Your task to perform on an android device: delete location history Image 0: 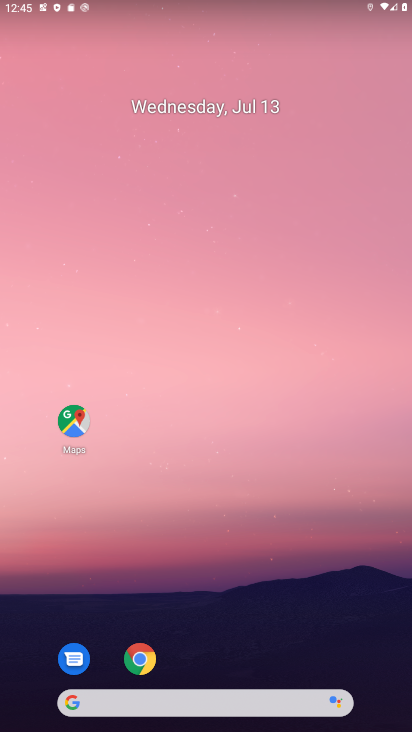
Step 0: click (261, 143)
Your task to perform on an android device: delete location history Image 1: 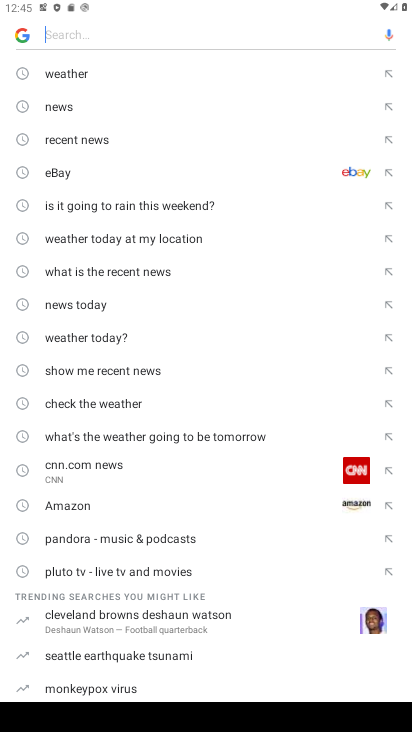
Step 1: drag from (164, 549) to (189, 278)
Your task to perform on an android device: delete location history Image 2: 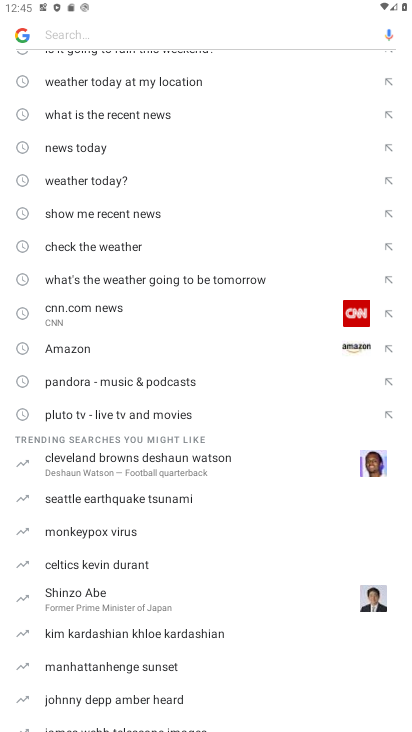
Step 2: drag from (216, 243) to (243, 723)
Your task to perform on an android device: delete location history Image 3: 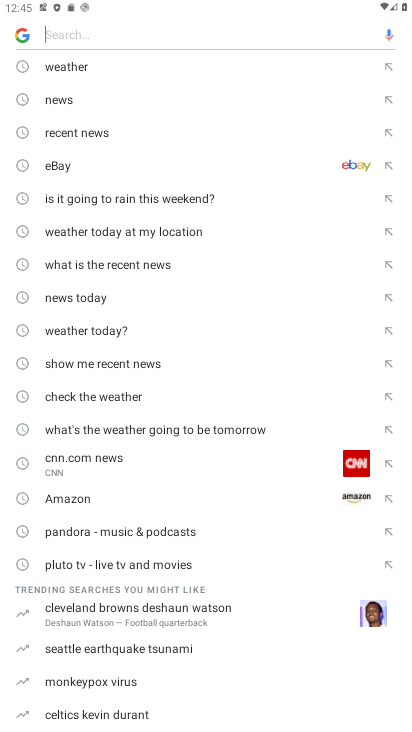
Step 3: press home button
Your task to perform on an android device: delete location history Image 4: 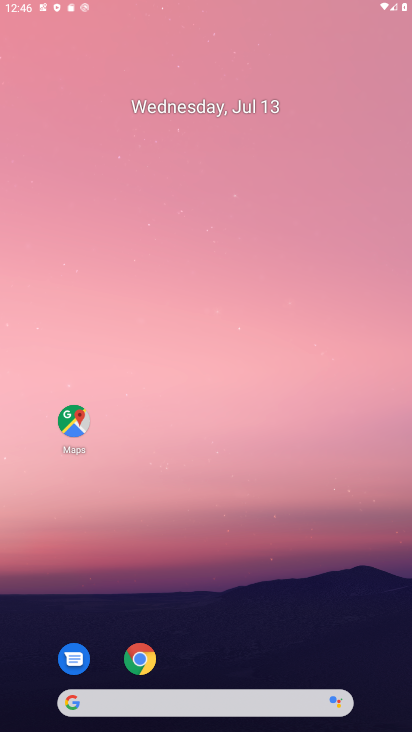
Step 4: drag from (165, 628) to (244, 157)
Your task to perform on an android device: delete location history Image 5: 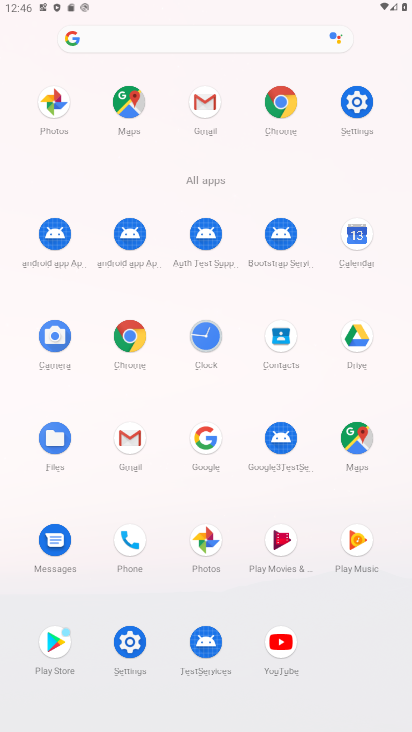
Step 5: click (348, 99)
Your task to perform on an android device: delete location history Image 6: 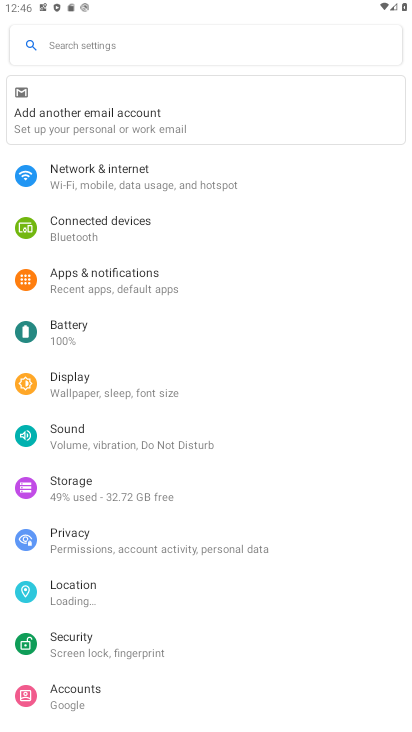
Step 6: drag from (161, 603) to (247, 247)
Your task to perform on an android device: delete location history Image 7: 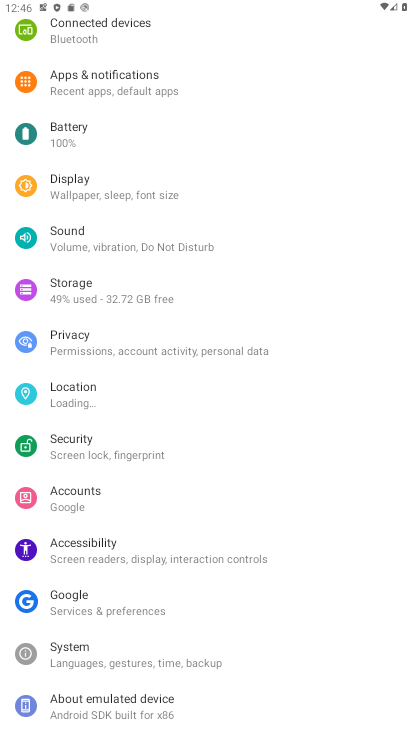
Step 7: click (125, 392)
Your task to perform on an android device: delete location history Image 8: 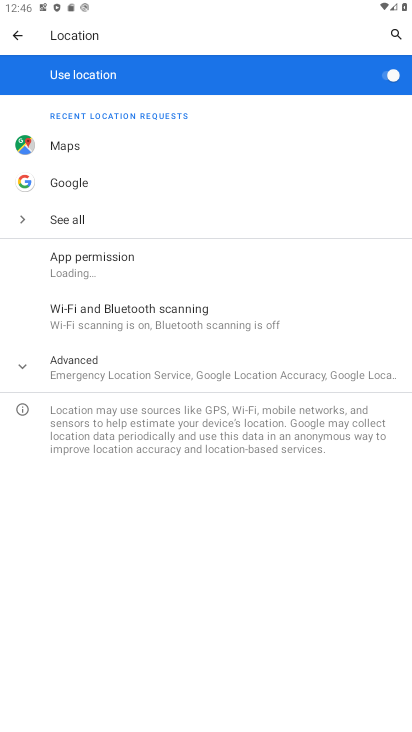
Step 8: click (129, 380)
Your task to perform on an android device: delete location history Image 9: 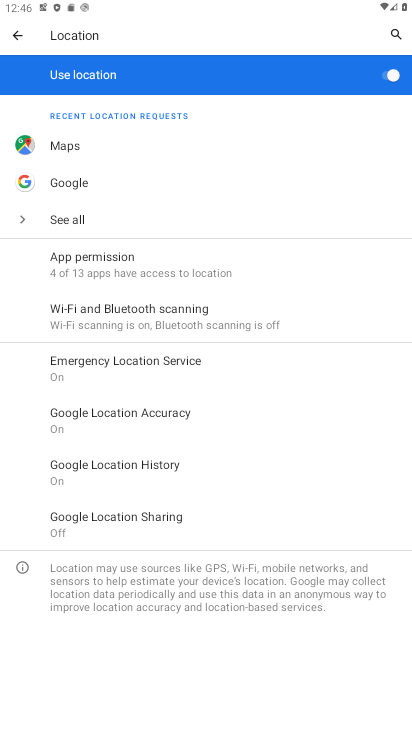
Step 9: click (166, 467)
Your task to perform on an android device: delete location history Image 10: 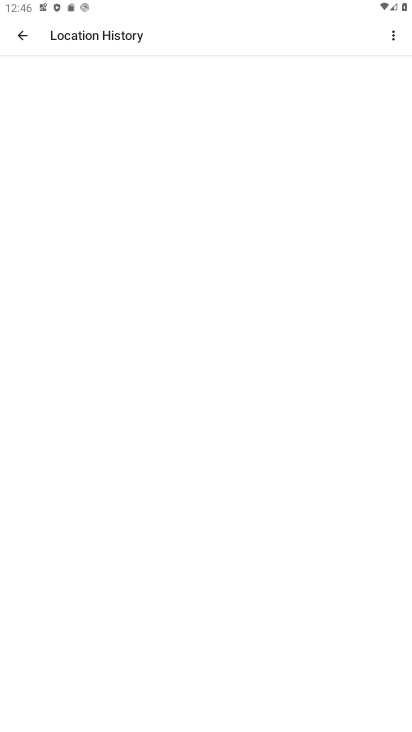
Step 10: drag from (218, 559) to (259, 220)
Your task to perform on an android device: delete location history Image 11: 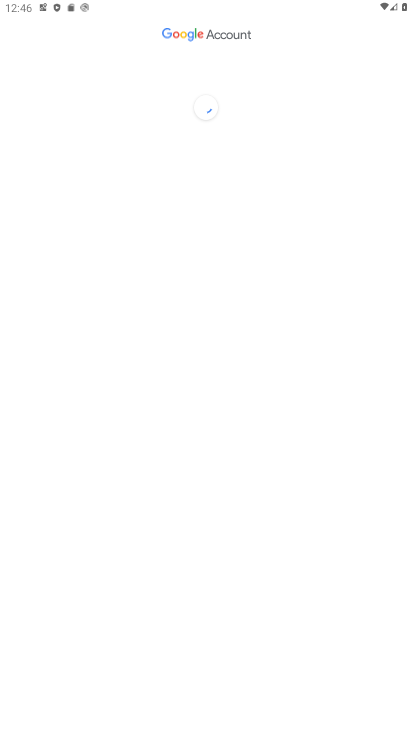
Step 11: drag from (224, 337) to (224, 272)
Your task to perform on an android device: delete location history Image 12: 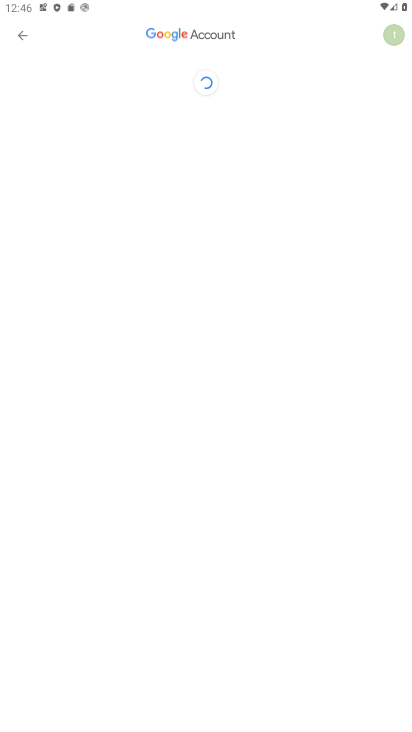
Step 12: drag from (195, 561) to (196, 326)
Your task to perform on an android device: delete location history Image 13: 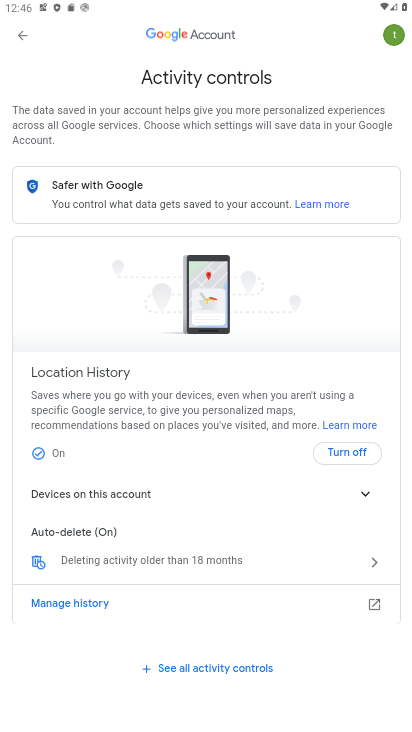
Step 13: drag from (227, 576) to (237, 300)
Your task to perform on an android device: delete location history Image 14: 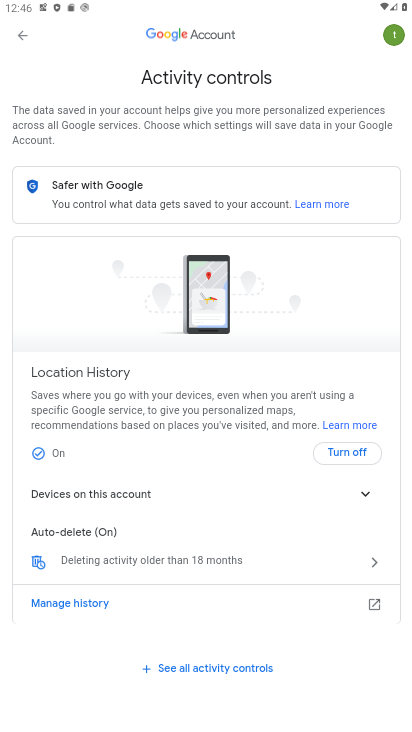
Step 14: click (41, 559)
Your task to perform on an android device: delete location history Image 15: 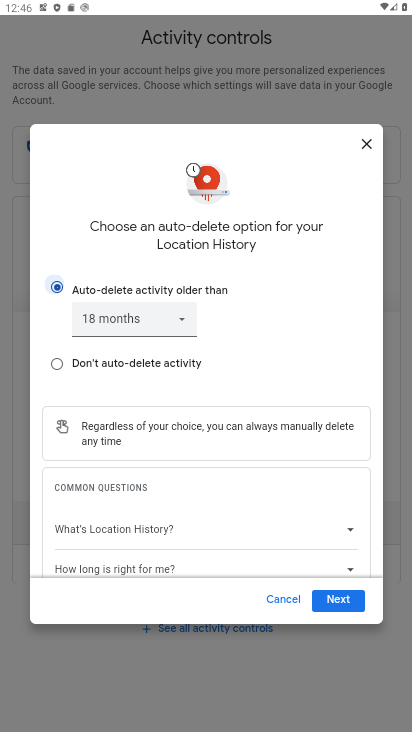
Step 15: drag from (235, 517) to (309, 138)
Your task to perform on an android device: delete location history Image 16: 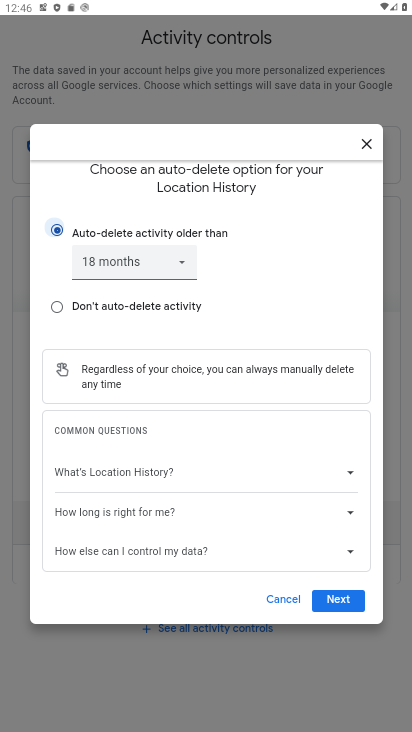
Step 16: click (330, 601)
Your task to perform on an android device: delete location history Image 17: 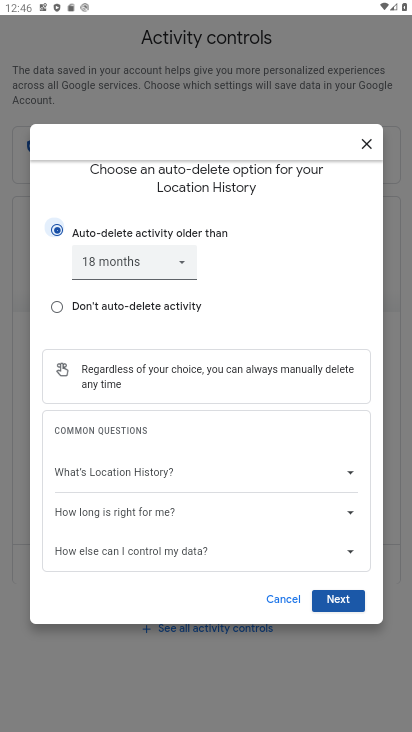
Step 17: click (340, 603)
Your task to perform on an android device: delete location history Image 18: 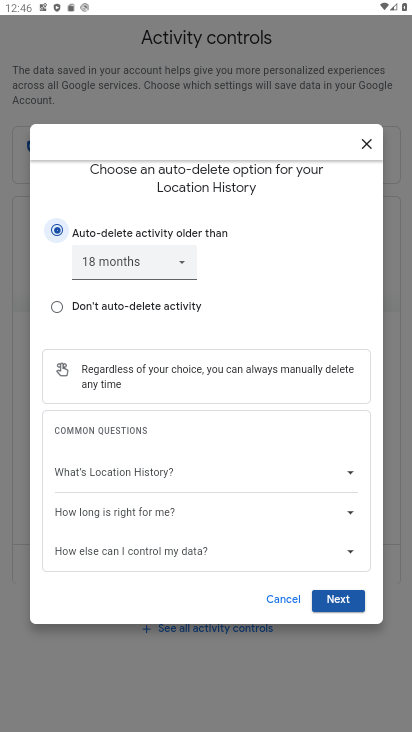
Step 18: click (334, 597)
Your task to perform on an android device: delete location history Image 19: 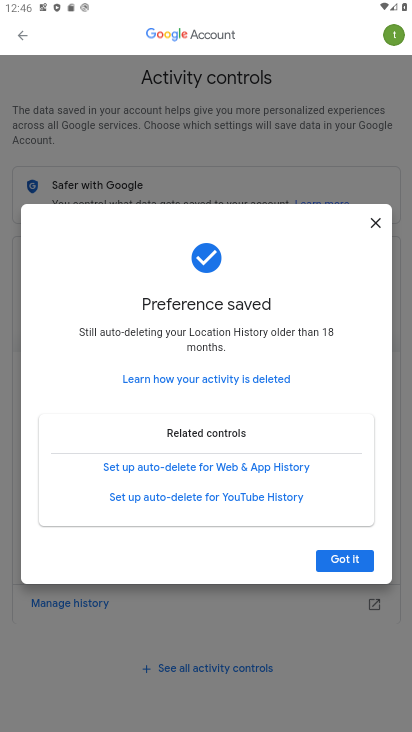
Step 19: click (348, 555)
Your task to perform on an android device: delete location history Image 20: 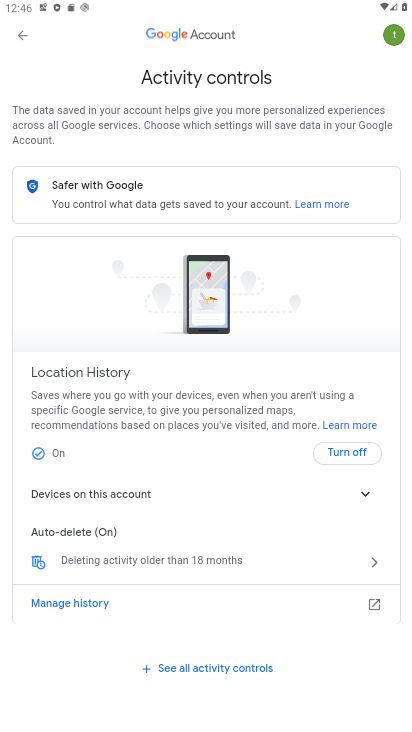
Step 20: click (232, 266)
Your task to perform on an android device: delete location history Image 21: 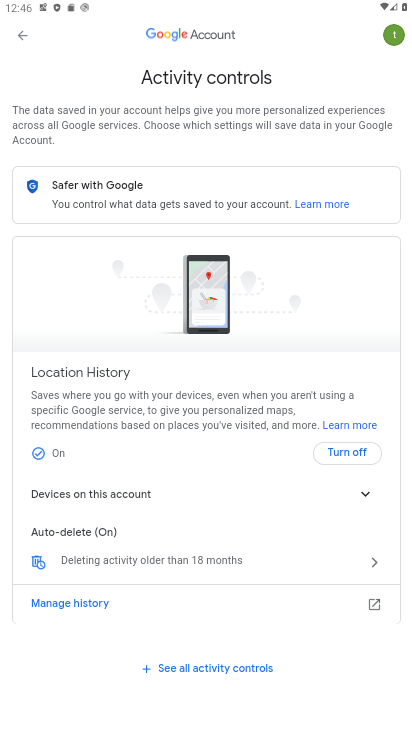
Step 21: task complete